Your task to perform on an android device: What's the weather today? Image 0: 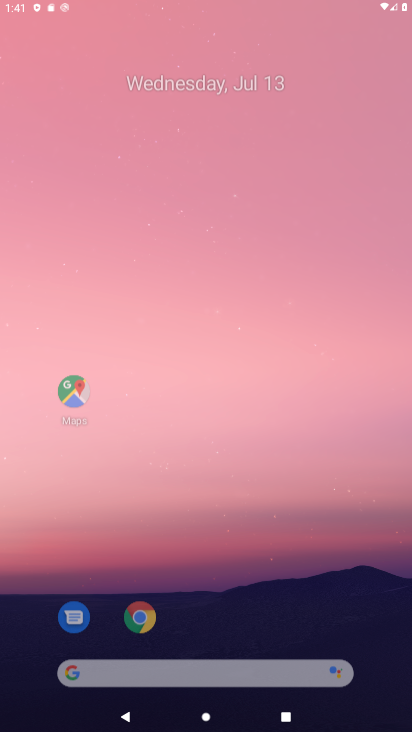
Step 0: press home button
Your task to perform on an android device: What's the weather today? Image 1: 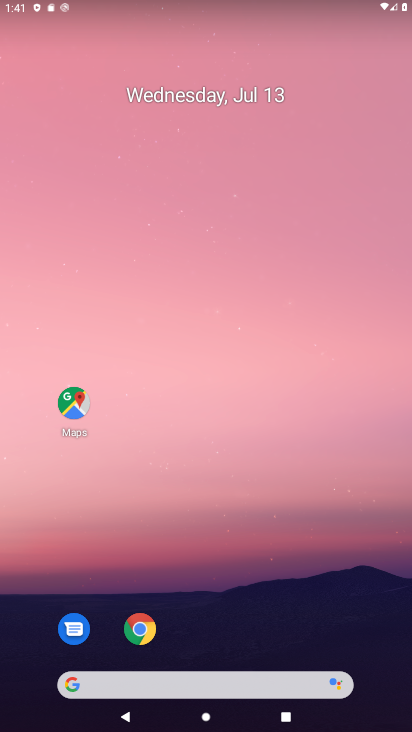
Step 1: click (140, 631)
Your task to perform on an android device: What's the weather today? Image 2: 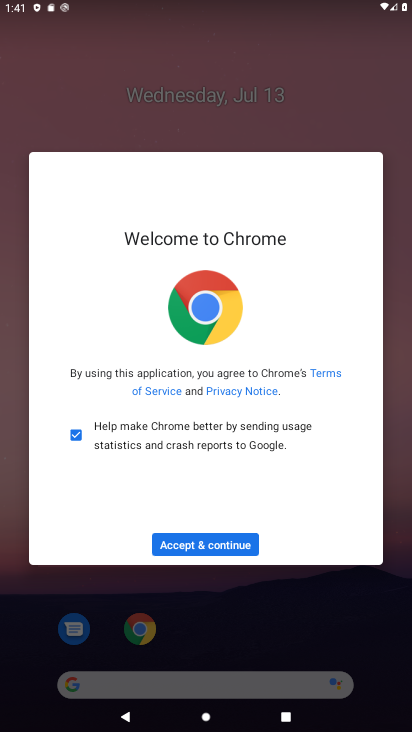
Step 2: click (196, 551)
Your task to perform on an android device: What's the weather today? Image 3: 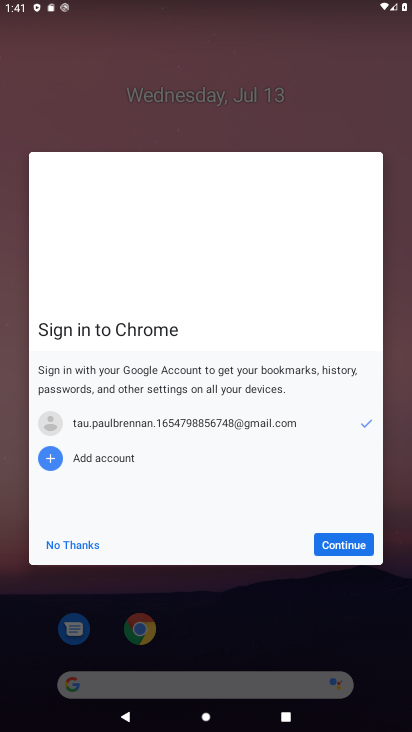
Step 3: click (340, 547)
Your task to perform on an android device: What's the weather today? Image 4: 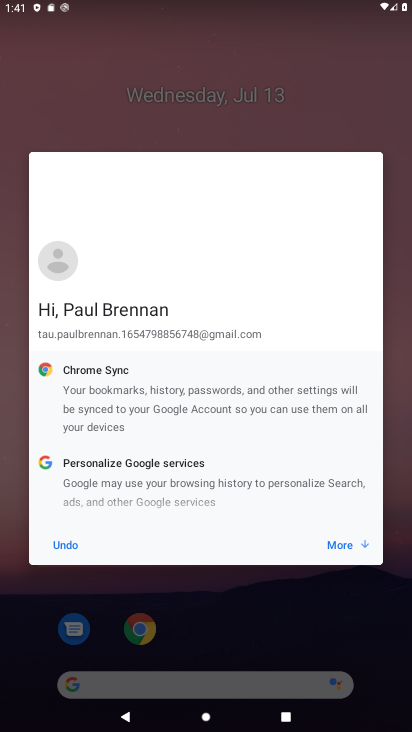
Step 4: click (340, 547)
Your task to perform on an android device: What's the weather today? Image 5: 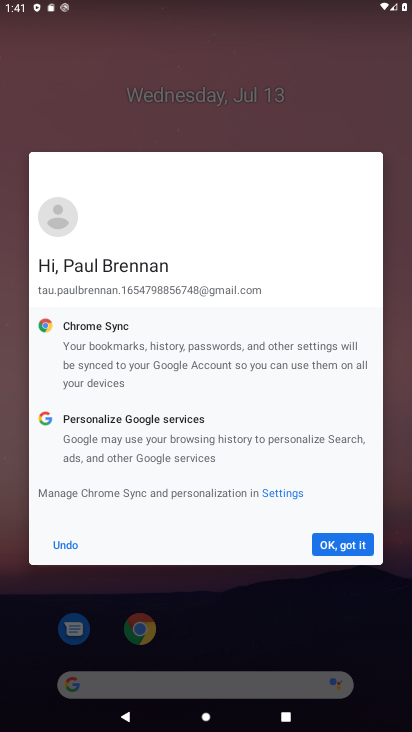
Step 5: click (340, 547)
Your task to perform on an android device: What's the weather today? Image 6: 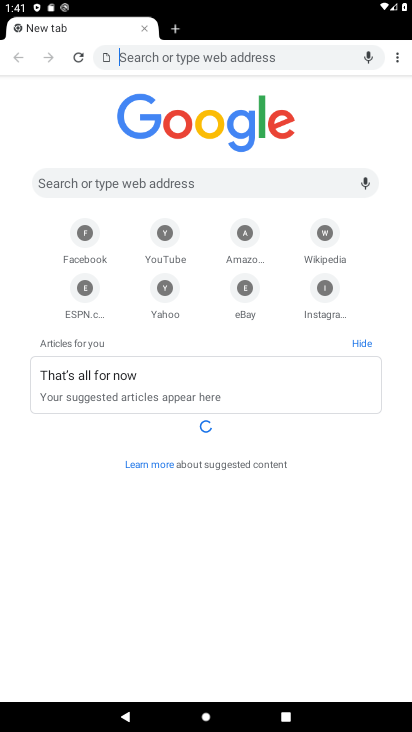
Step 6: click (219, 55)
Your task to perform on an android device: What's the weather today? Image 7: 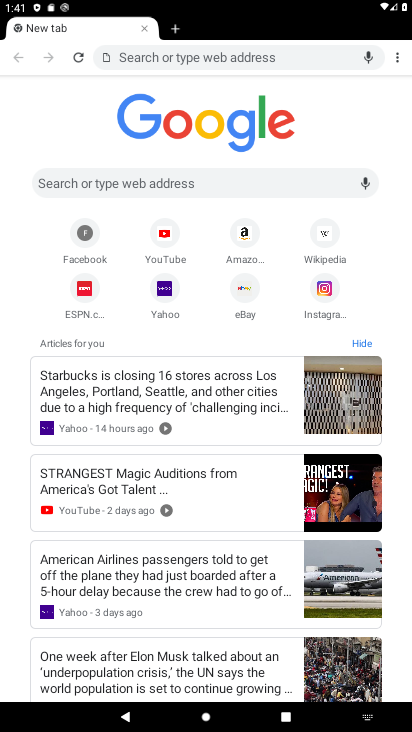
Step 7: type "weather today"
Your task to perform on an android device: What's the weather today? Image 8: 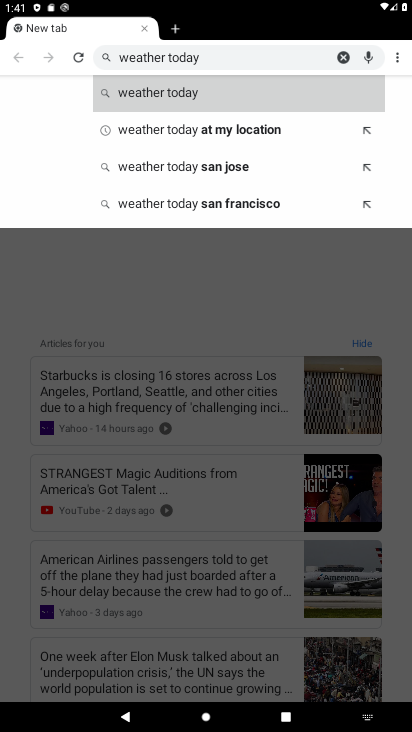
Step 8: click (188, 98)
Your task to perform on an android device: What's the weather today? Image 9: 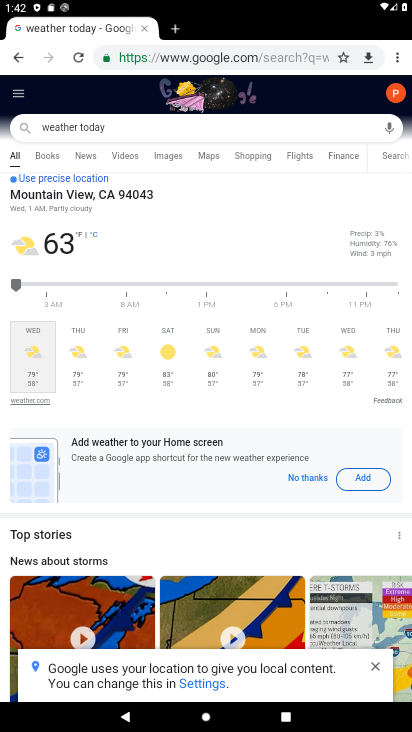
Step 9: task complete